Your task to perform on an android device: Open accessibility settings Image 0: 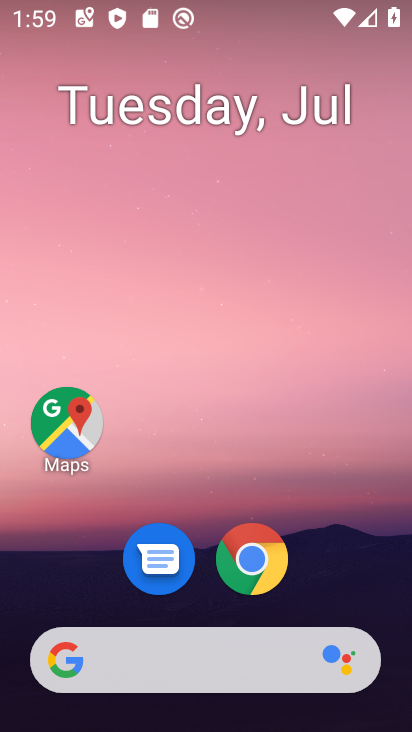
Step 0: drag from (355, 568) to (356, 166)
Your task to perform on an android device: Open accessibility settings Image 1: 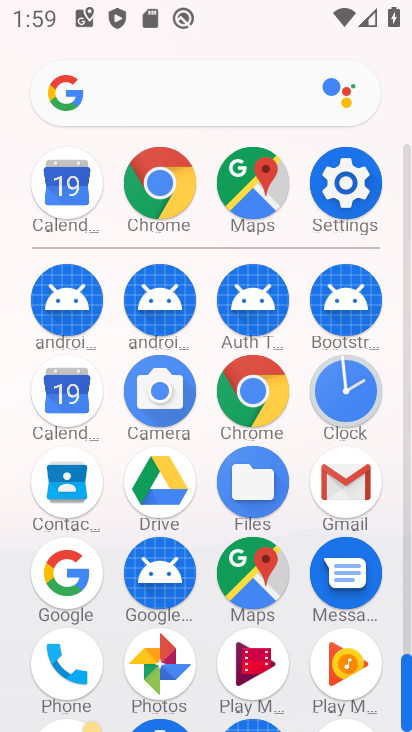
Step 1: click (349, 184)
Your task to perform on an android device: Open accessibility settings Image 2: 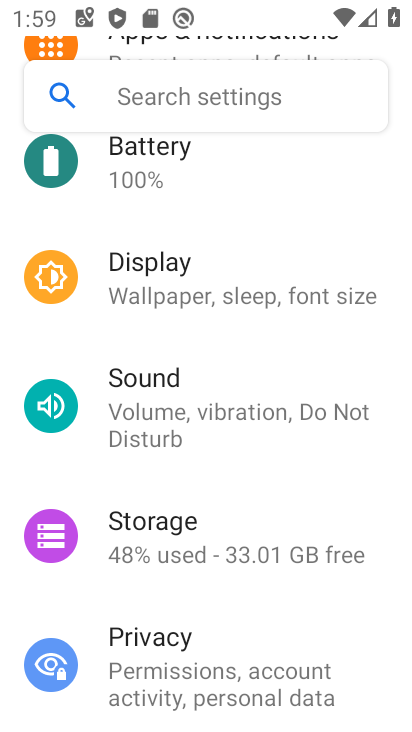
Step 2: drag from (349, 184) to (357, 281)
Your task to perform on an android device: Open accessibility settings Image 3: 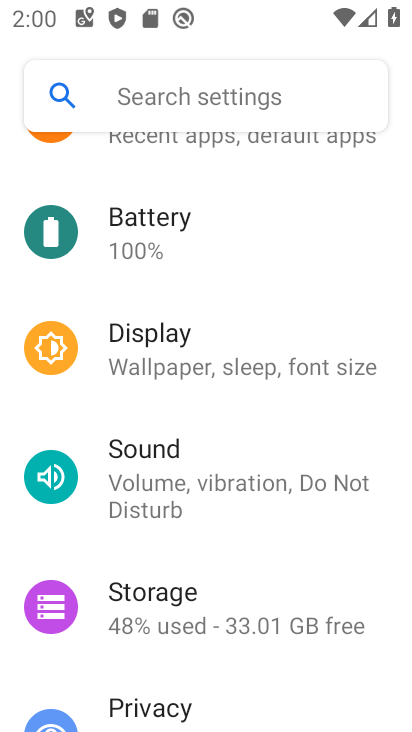
Step 3: drag from (357, 230) to (362, 321)
Your task to perform on an android device: Open accessibility settings Image 4: 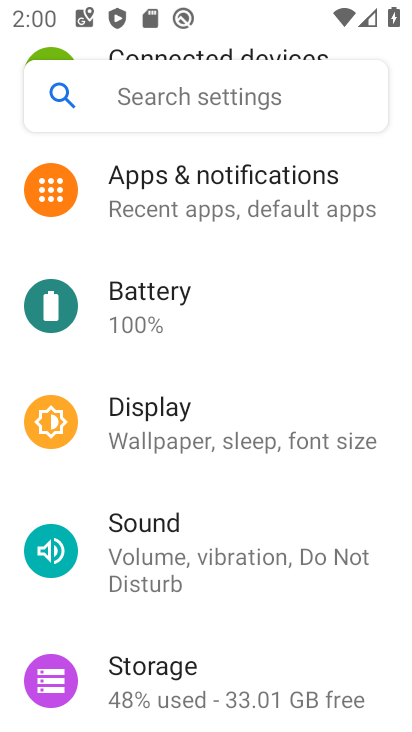
Step 4: drag from (375, 193) to (375, 306)
Your task to perform on an android device: Open accessibility settings Image 5: 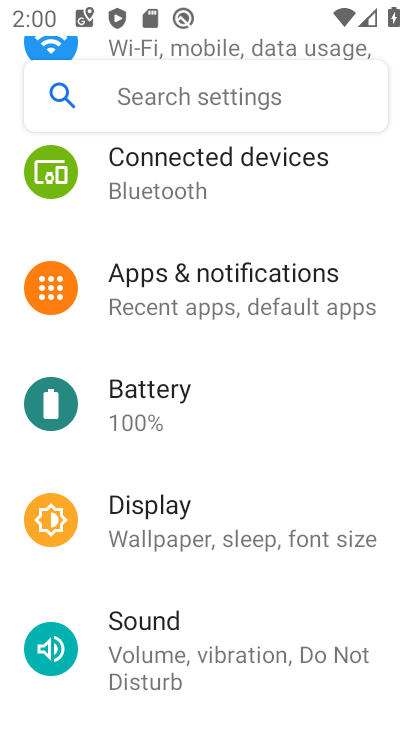
Step 5: drag from (375, 184) to (381, 288)
Your task to perform on an android device: Open accessibility settings Image 6: 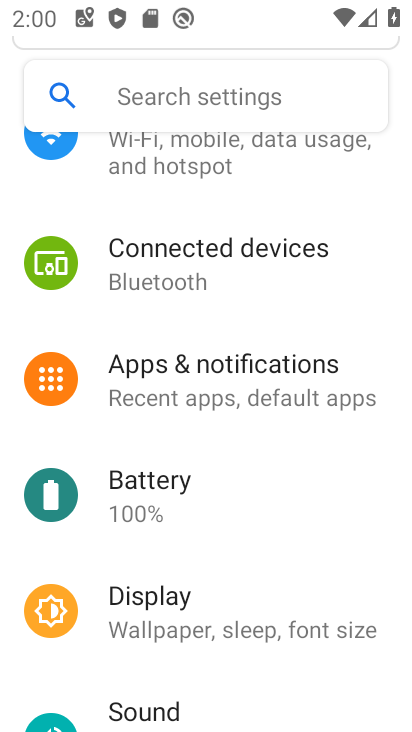
Step 6: drag from (345, 474) to (344, 415)
Your task to perform on an android device: Open accessibility settings Image 7: 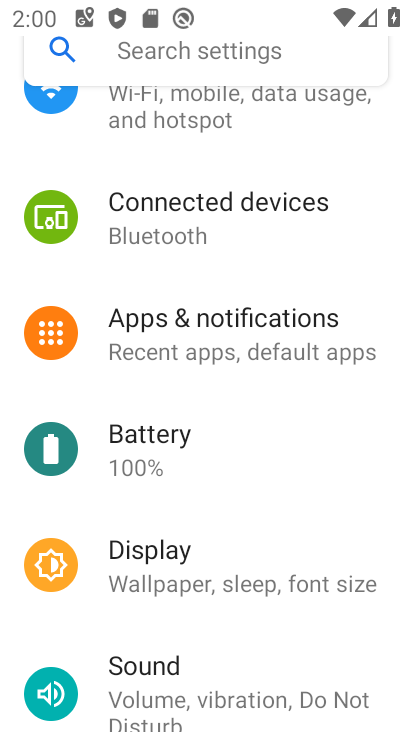
Step 7: drag from (339, 477) to (346, 423)
Your task to perform on an android device: Open accessibility settings Image 8: 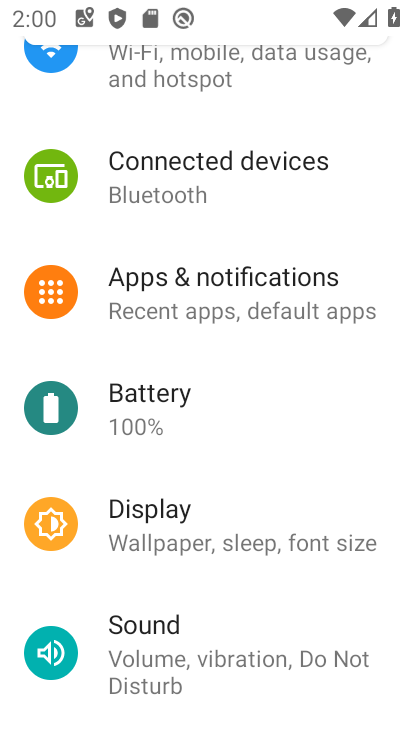
Step 8: drag from (337, 451) to (338, 389)
Your task to perform on an android device: Open accessibility settings Image 9: 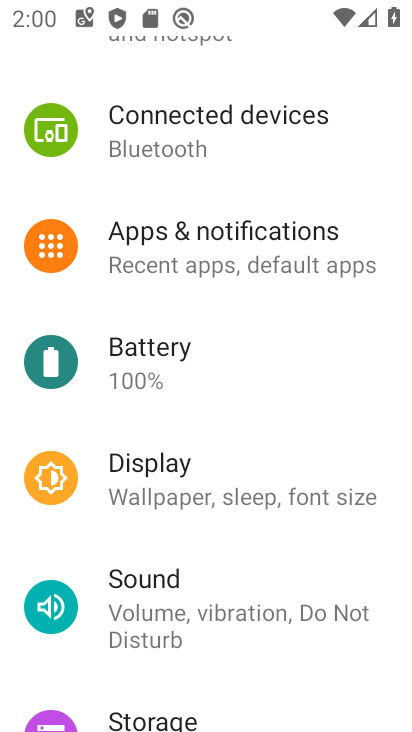
Step 9: drag from (333, 528) to (337, 422)
Your task to perform on an android device: Open accessibility settings Image 10: 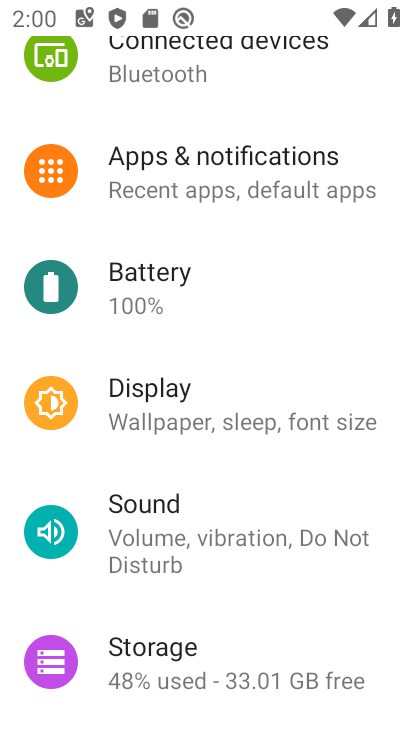
Step 10: drag from (354, 552) to (358, 449)
Your task to perform on an android device: Open accessibility settings Image 11: 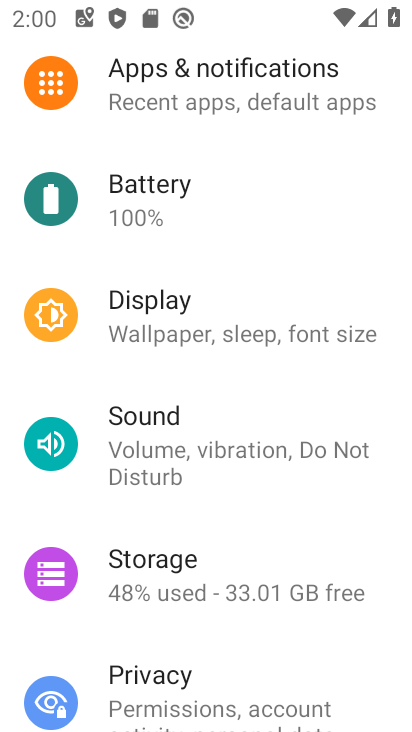
Step 11: drag from (356, 535) to (354, 436)
Your task to perform on an android device: Open accessibility settings Image 12: 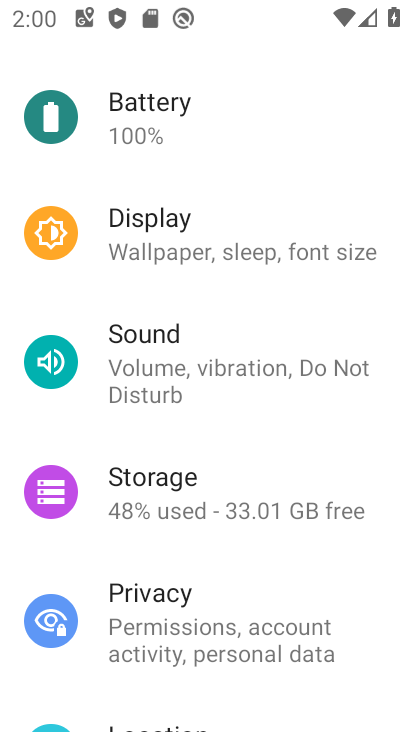
Step 12: drag from (357, 536) to (363, 462)
Your task to perform on an android device: Open accessibility settings Image 13: 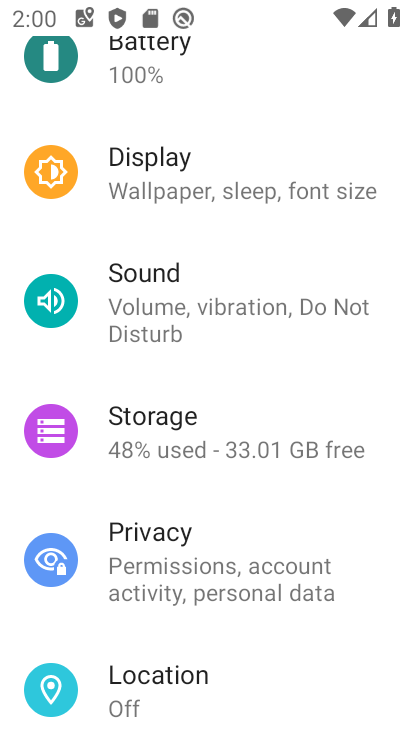
Step 13: drag from (357, 529) to (359, 467)
Your task to perform on an android device: Open accessibility settings Image 14: 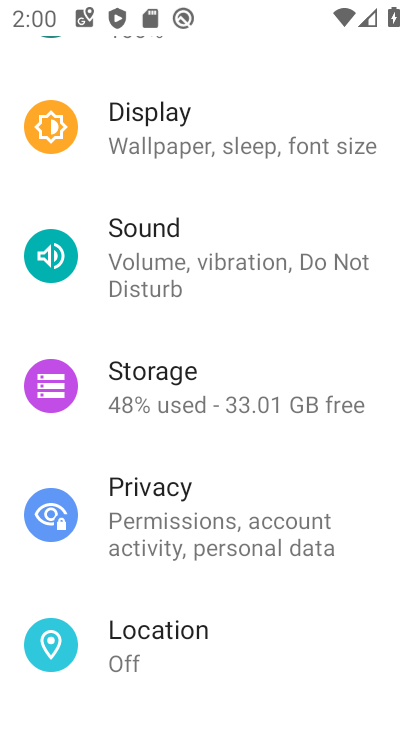
Step 14: drag from (363, 553) to (363, 489)
Your task to perform on an android device: Open accessibility settings Image 15: 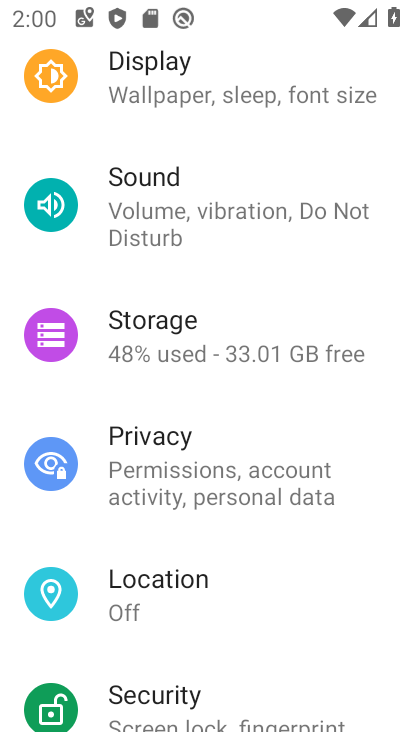
Step 15: drag from (359, 563) to (362, 490)
Your task to perform on an android device: Open accessibility settings Image 16: 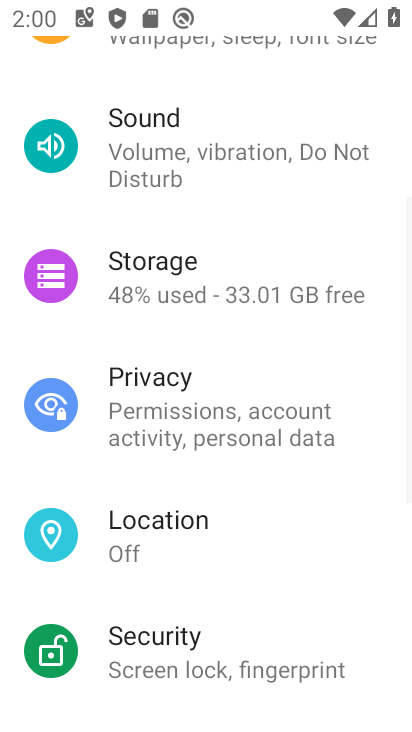
Step 16: drag from (346, 552) to (350, 488)
Your task to perform on an android device: Open accessibility settings Image 17: 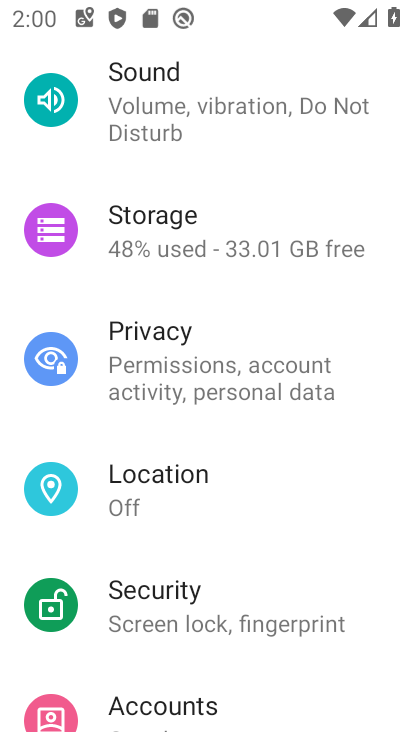
Step 17: drag from (372, 604) to (367, 414)
Your task to perform on an android device: Open accessibility settings Image 18: 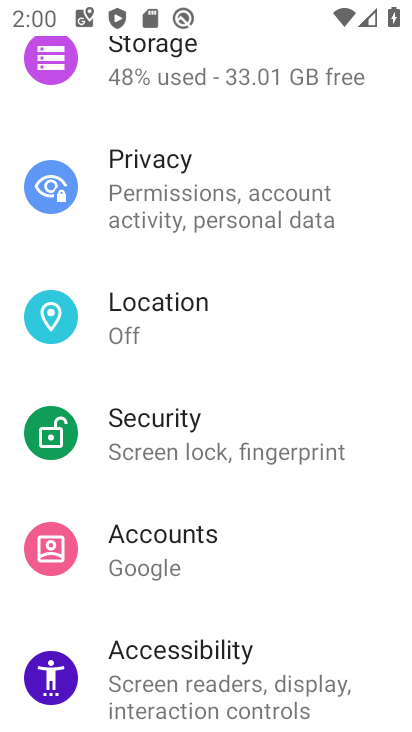
Step 18: drag from (363, 595) to (366, 490)
Your task to perform on an android device: Open accessibility settings Image 19: 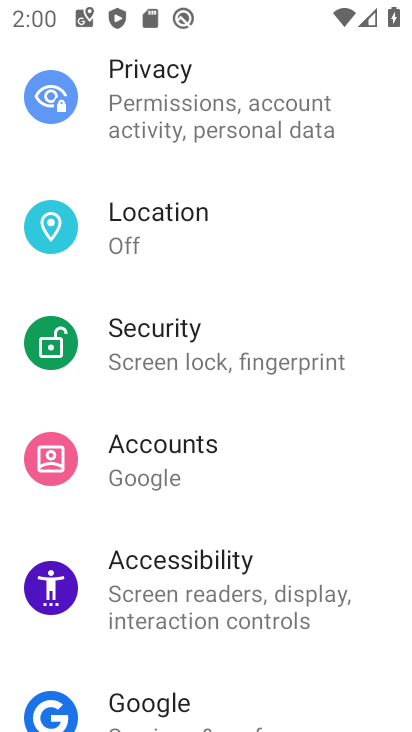
Step 19: click (355, 583)
Your task to perform on an android device: Open accessibility settings Image 20: 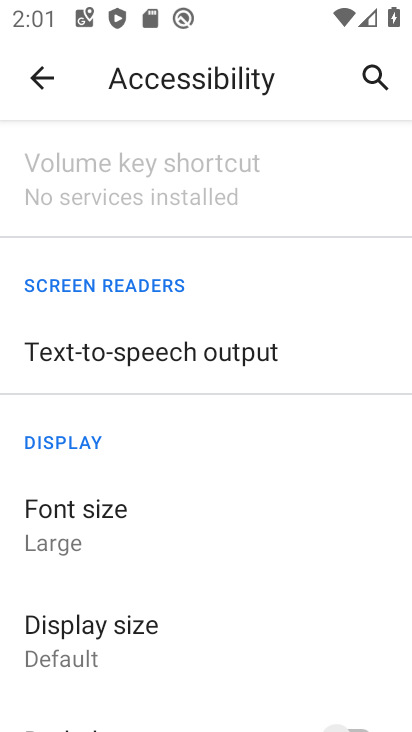
Step 20: task complete